Your task to perform on an android device: Turn off the flashlight Image 0: 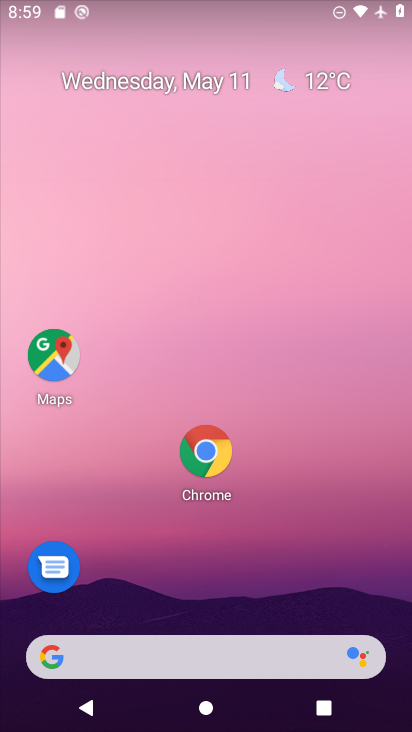
Step 0: drag from (224, 1) to (163, 353)
Your task to perform on an android device: Turn off the flashlight Image 1: 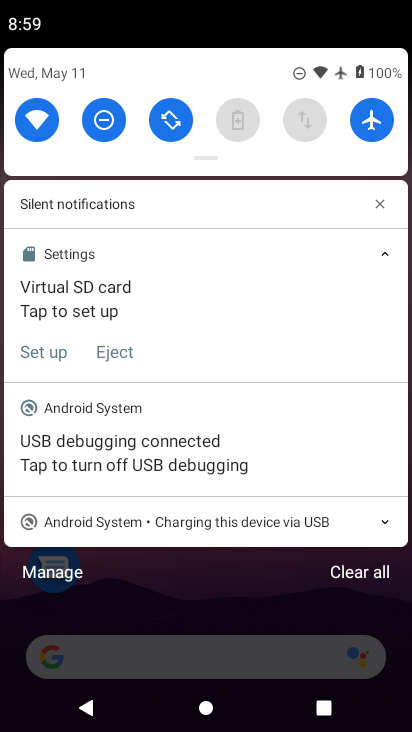
Step 1: task complete